Your task to perform on an android device: turn on javascript in the chrome app Image 0: 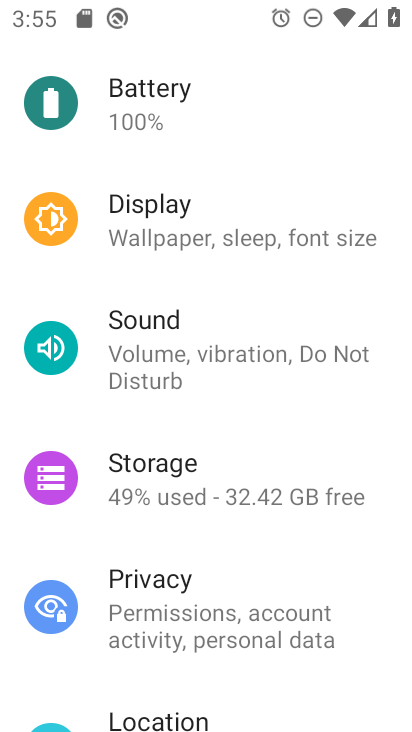
Step 0: drag from (173, 633) to (230, 238)
Your task to perform on an android device: turn on javascript in the chrome app Image 1: 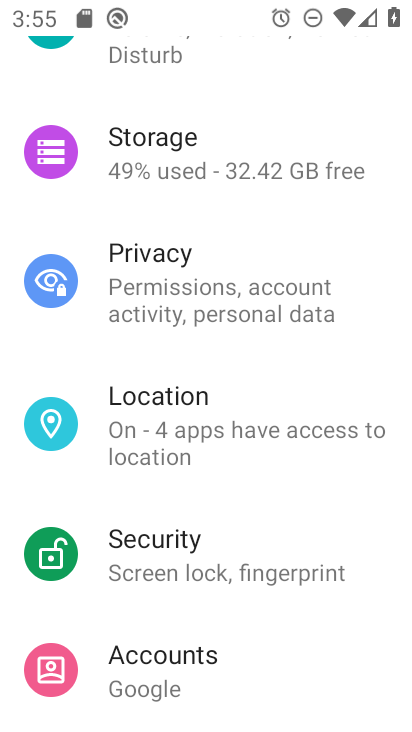
Step 1: press home button
Your task to perform on an android device: turn on javascript in the chrome app Image 2: 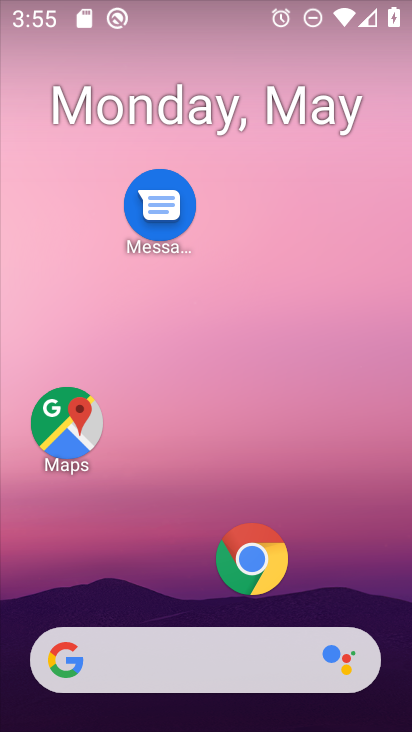
Step 2: drag from (215, 590) to (153, 129)
Your task to perform on an android device: turn on javascript in the chrome app Image 3: 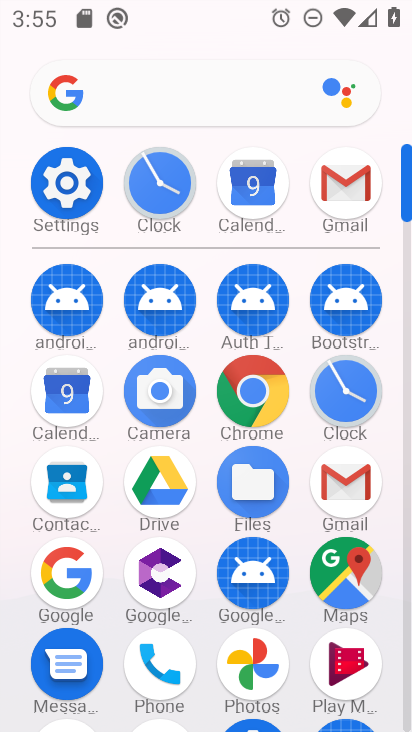
Step 3: click (255, 388)
Your task to perform on an android device: turn on javascript in the chrome app Image 4: 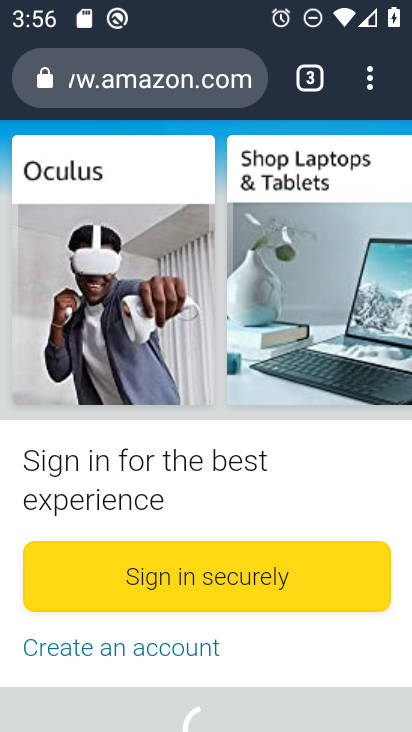
Step 4: drag from (214, 168) to (208, 621)
Your task to perform on an android device: turn on javascript in the chrome app Image 5: 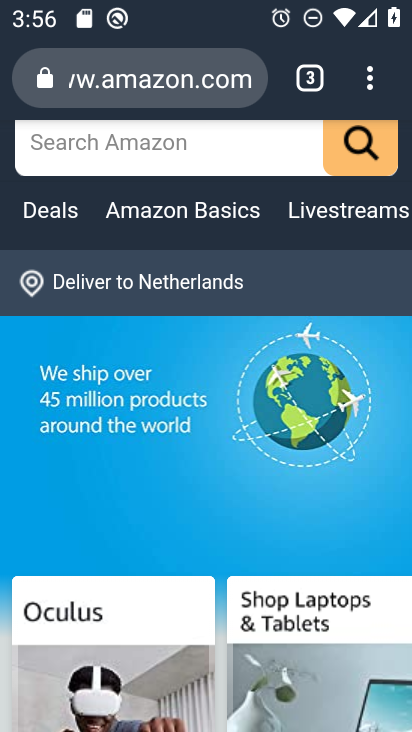
Step 5: drag from (361, 86) to (157, 605)
Your task to perform on an android device: turn on javascript in the chrome app Image 6: 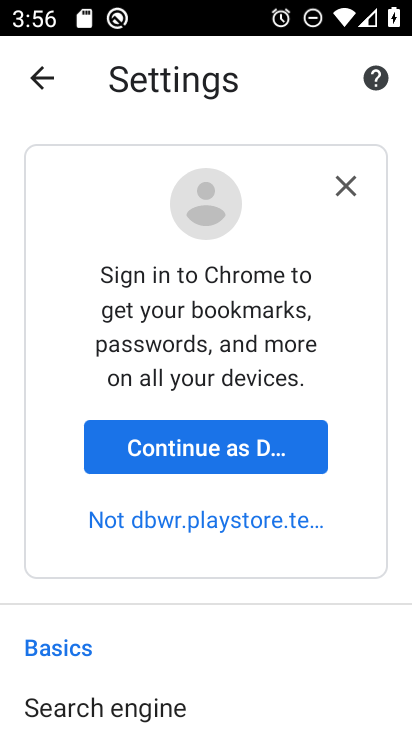
Step 6: drag from (202, 620) to (285, 259)
Your task to perform on an android device: turn on javascript in the chrome app Image 7: 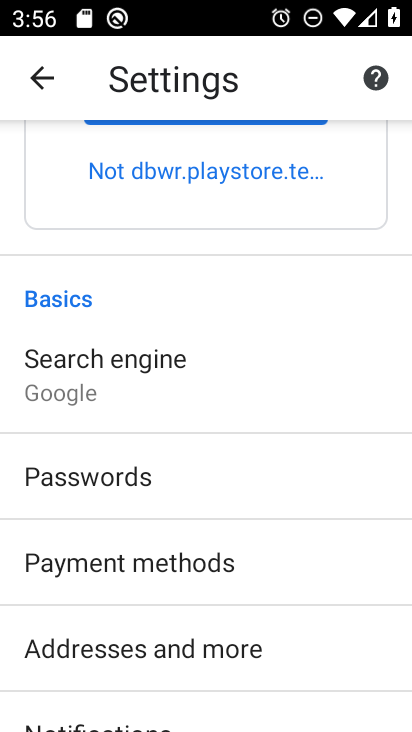
Step 7: drag from (217, 605) to (264, 208)
Your task to perform on an android device: turn on javascript in the chrome app Image 8: 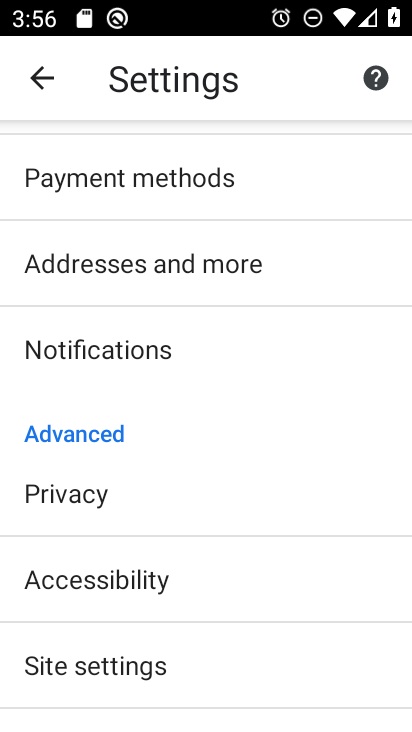
Step 8: click (146, 676)
Your task to perform on an android device: turn on javascript in the chrome app Image 9: 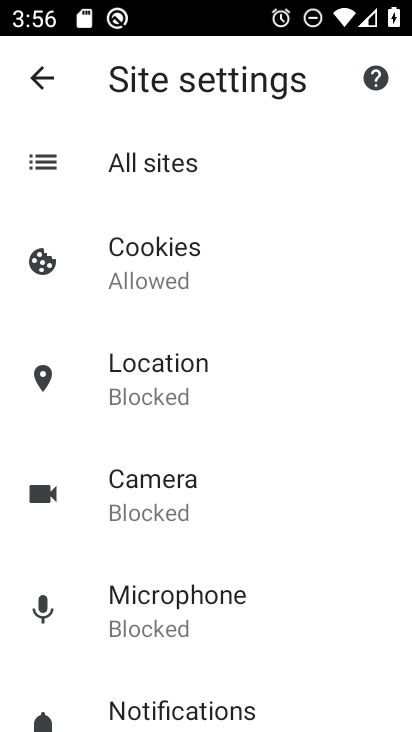
Step 9: drag from (211, 651) to (285, 385)
Your task to perform on an android device: turn on javascript in the chrome app Image 10: 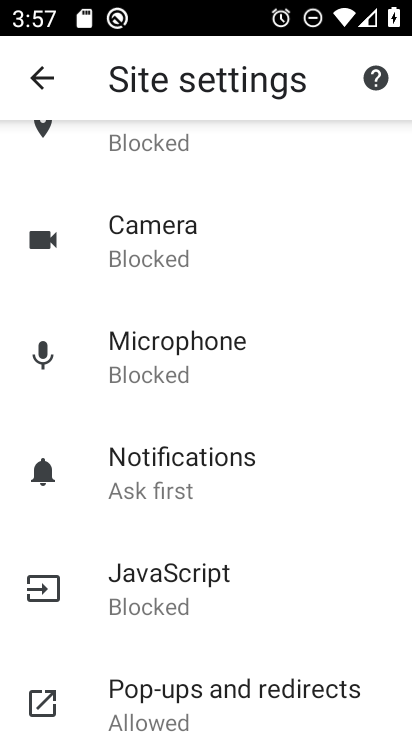
Step 10: click (187, 583)
Your task to perform on an android device: turn on javascript in the chrome app Image 11: 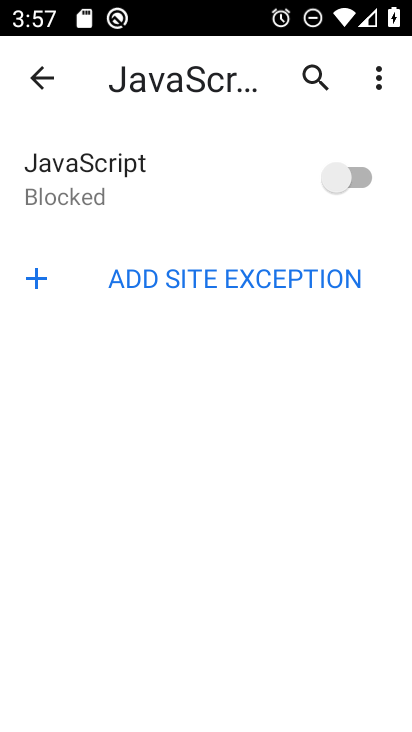
Step 11: click (333, 157)
Your task to perform on an android device: turn on javascript in the chrome app Image 12: 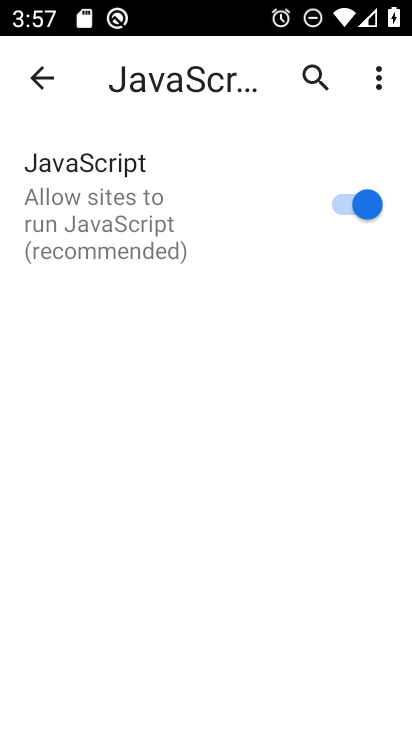
Step 12: task complete